Your task to perform on an android device: Go to Google maps Image 0: 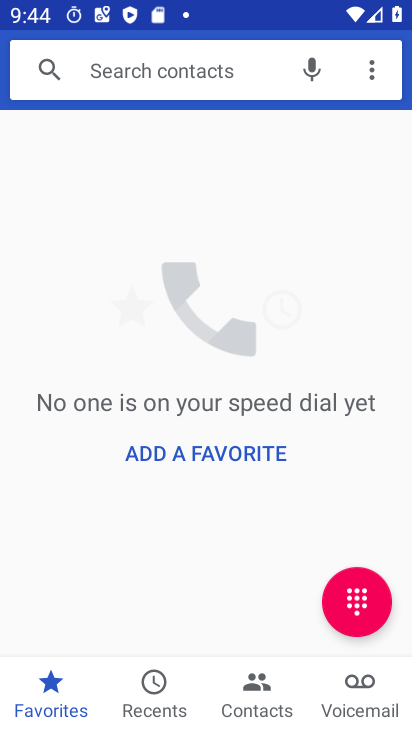
Step 0: press home button
Your task to perform on an android device: Go to Google maps Image 1: 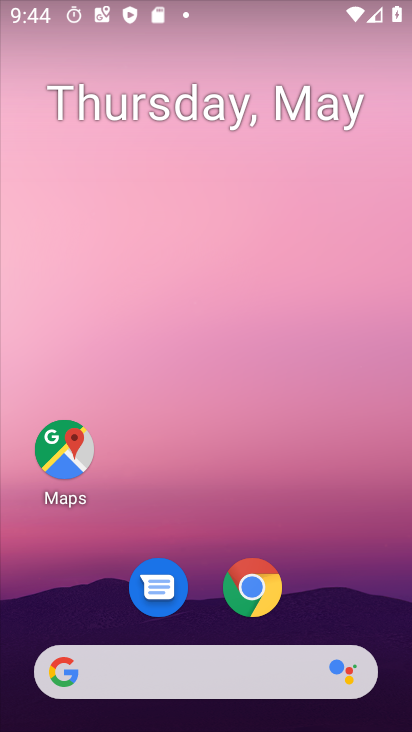
Step 1: click (68, 450)
Your task to perform on an android device: Go to Google maps Image 2: 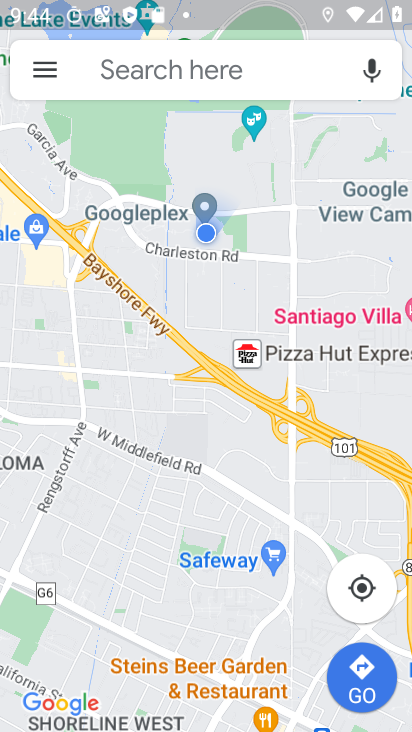
Step 2: task complete